Your task to perform on an android device: Add rayovac triple a to the cart on costco.com Image 0: 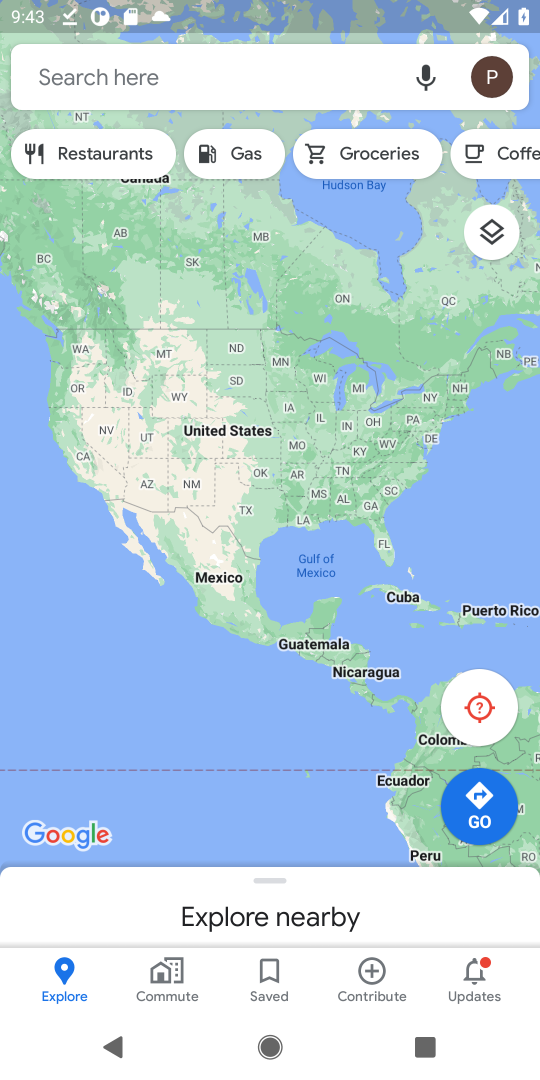
Step 0: press home button
Your task to perform on an android device: Add rayovac triple a to the cart on costco.com Image 1: 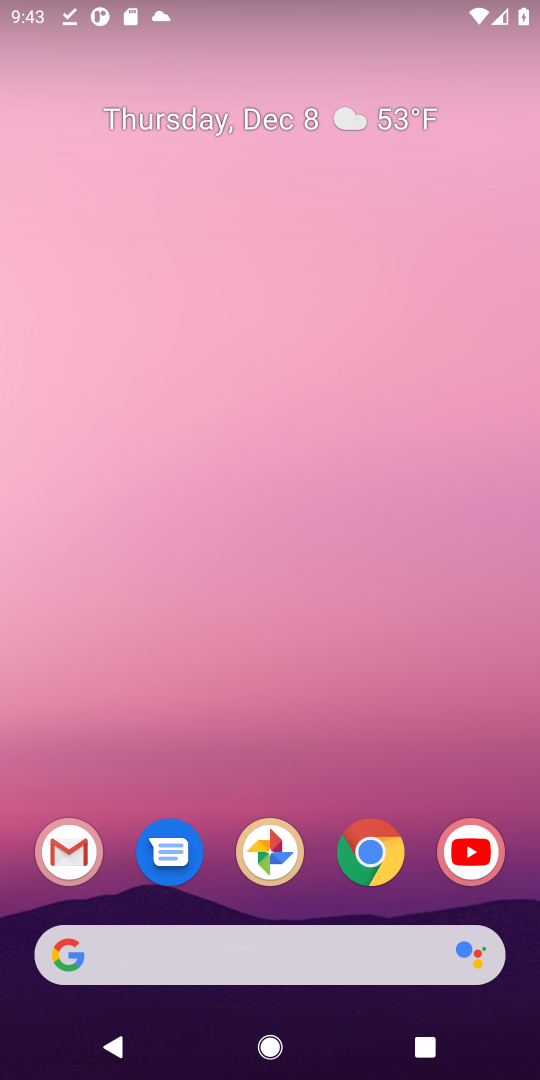
Step 1: click (264, 935)
Your task to perform on an android device: Add rayovac triple a to the cart on costco.com Image 2: 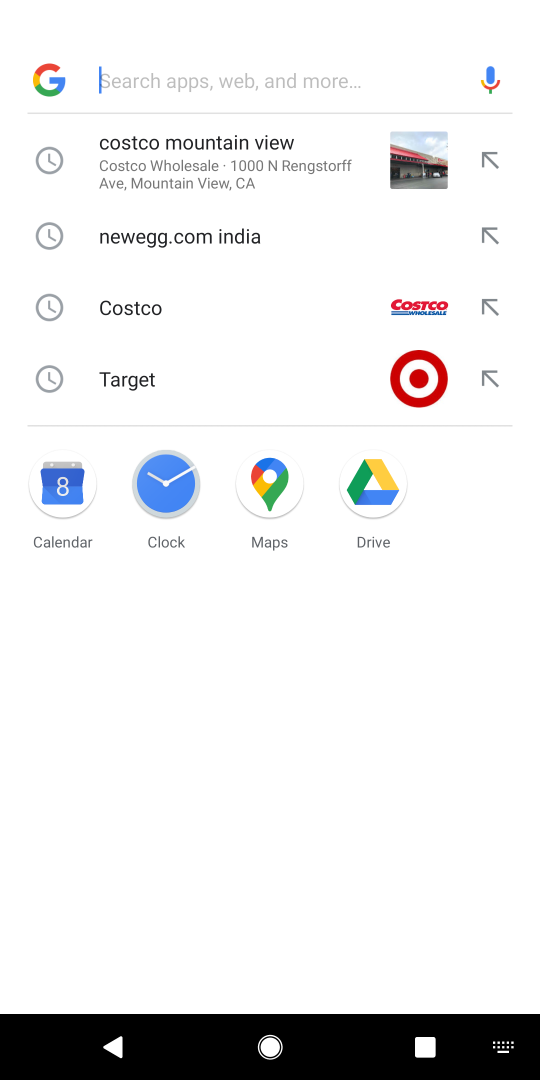
Step 2: type "costco"
Your task to perform on an android device: Add rayovac triple a to the cart on costco.com Image 3: 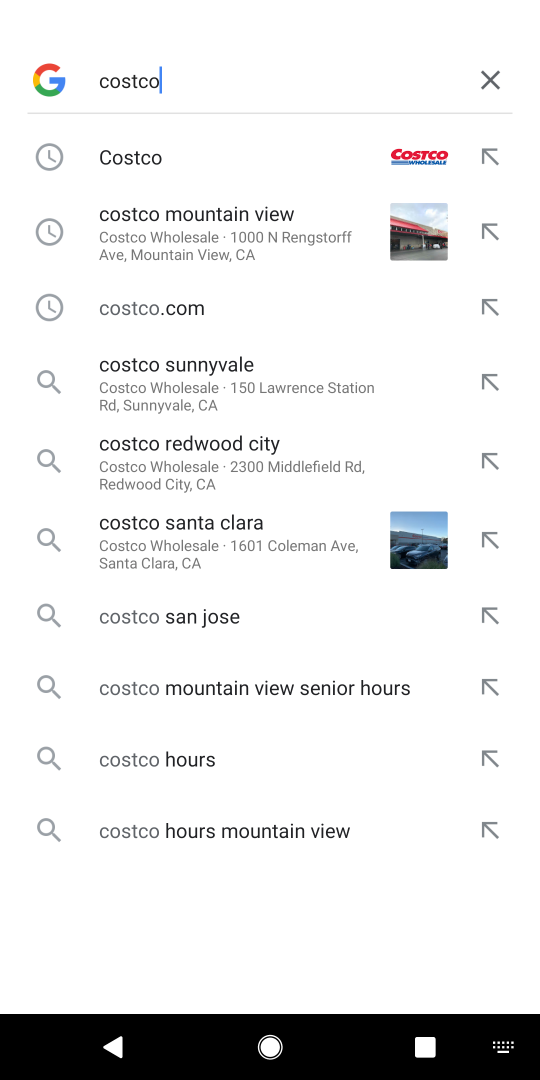
Step 3: click (172, 160)
Your task to perform on an android device: Add rayovac triple a to the cart on costco.com Image 4: 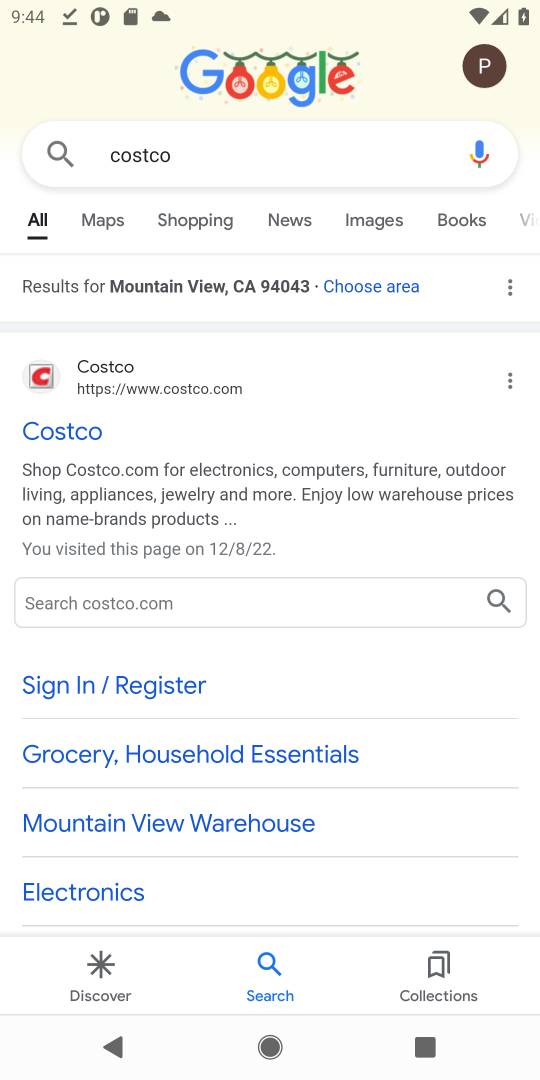
Step 4: click (35, 433)
Your task to perform on an android device: Add rayovac triple a to the cart on costco.com Image 5: 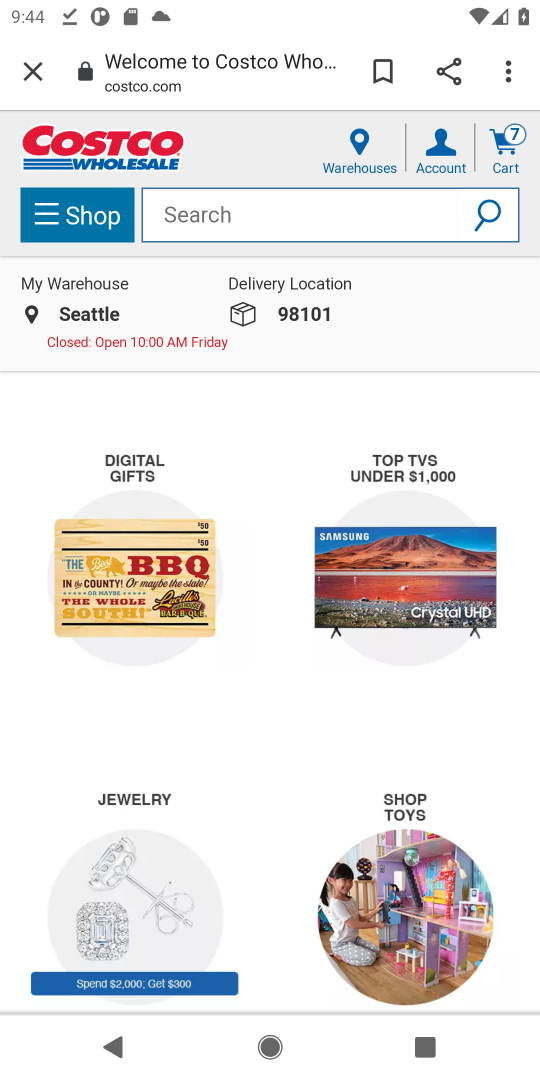
Step 5: click (234, 231)
Your task to perform on an android device: Add rayovac triple a to the cart on costco.com Image 6: 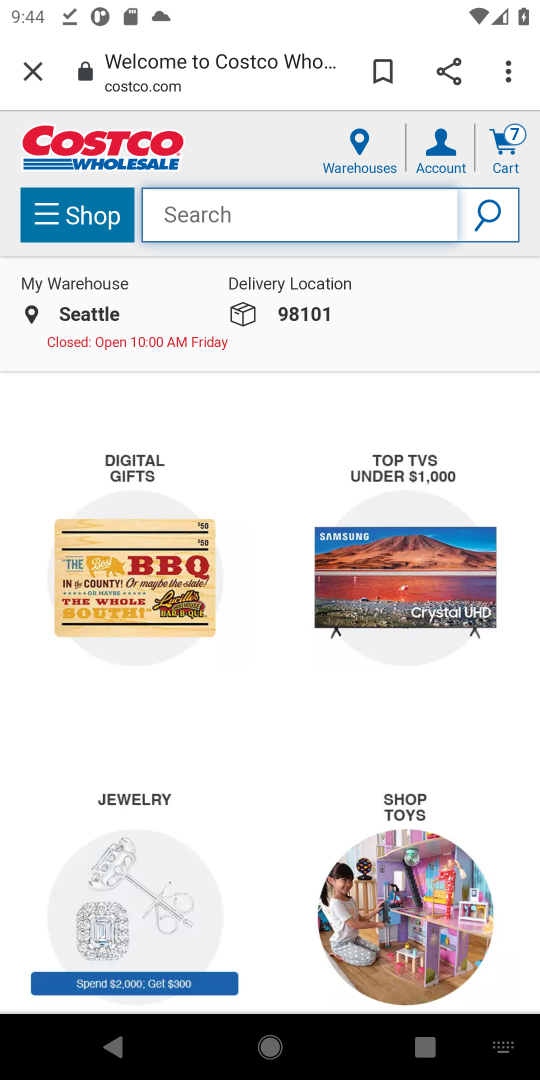
Step 6: type "rayovac triple a"
Your task to perform on an android device: Add rayovac triple a to the cart on costco.com Image 7: 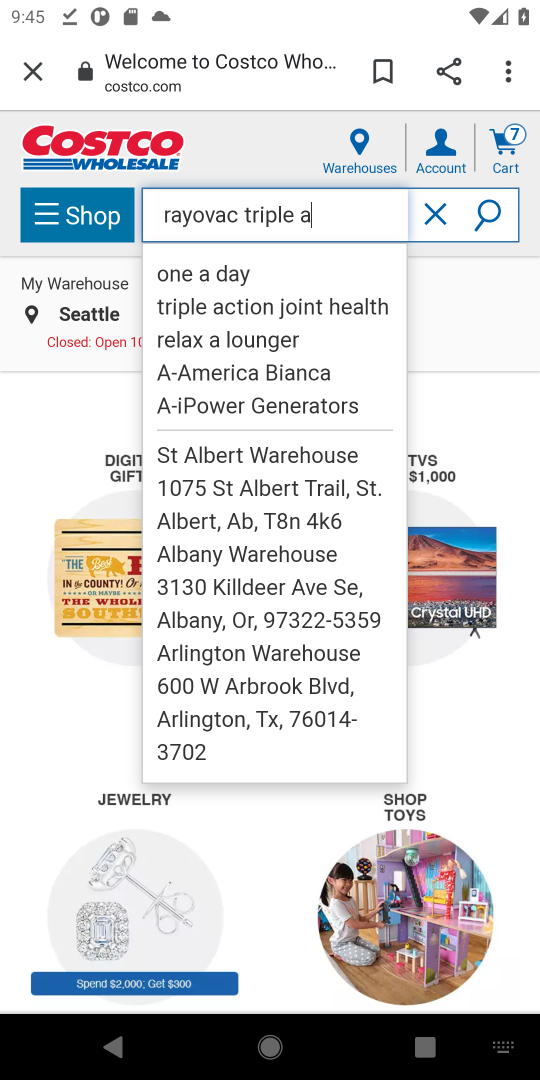
Step 7: click (495, 223)
Your task to perform on an android device: Add rayovac triple a to the cart on costco.com Image 8: 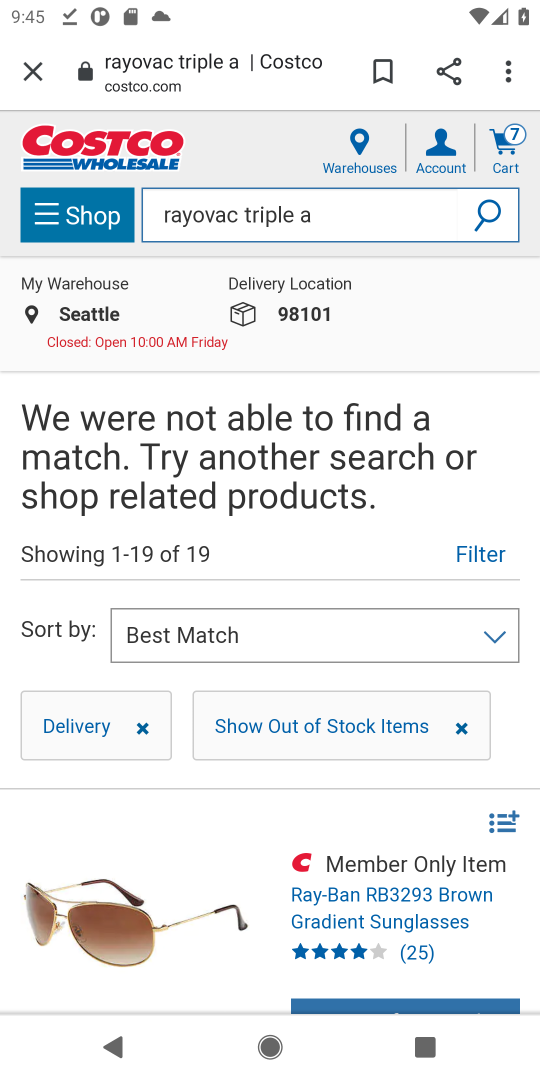
Step 8: click (474, 212)
Your task to perform on an android device: Add rayovac triple a to the cart on costco.com Image 9: 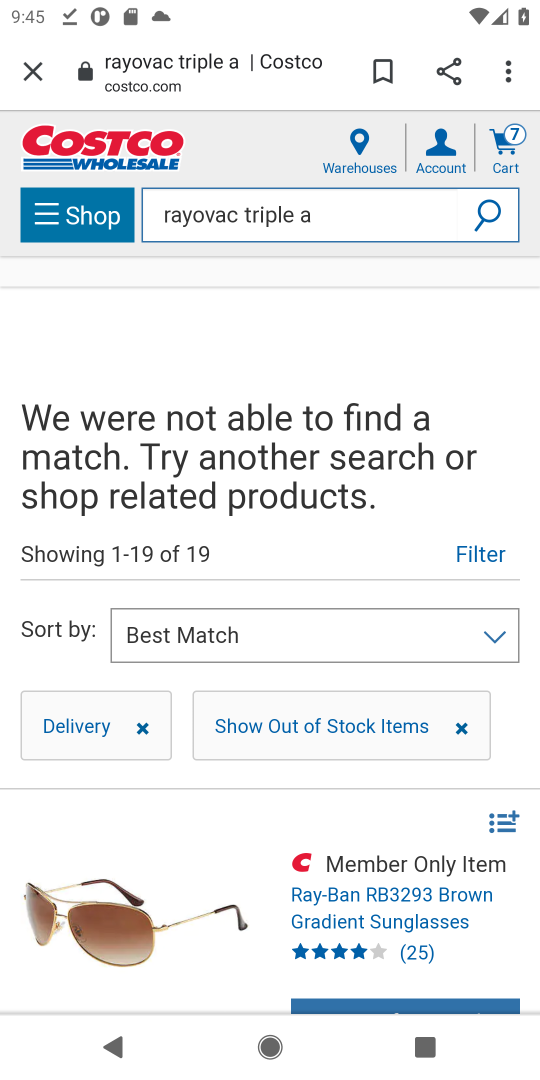
Step 9: task complete